Your task to perform on an android device: Clear the shopping cart on target. Search for "macbook pro" on target, select the first entry, add it to the cart, then select checkout. Image 0: 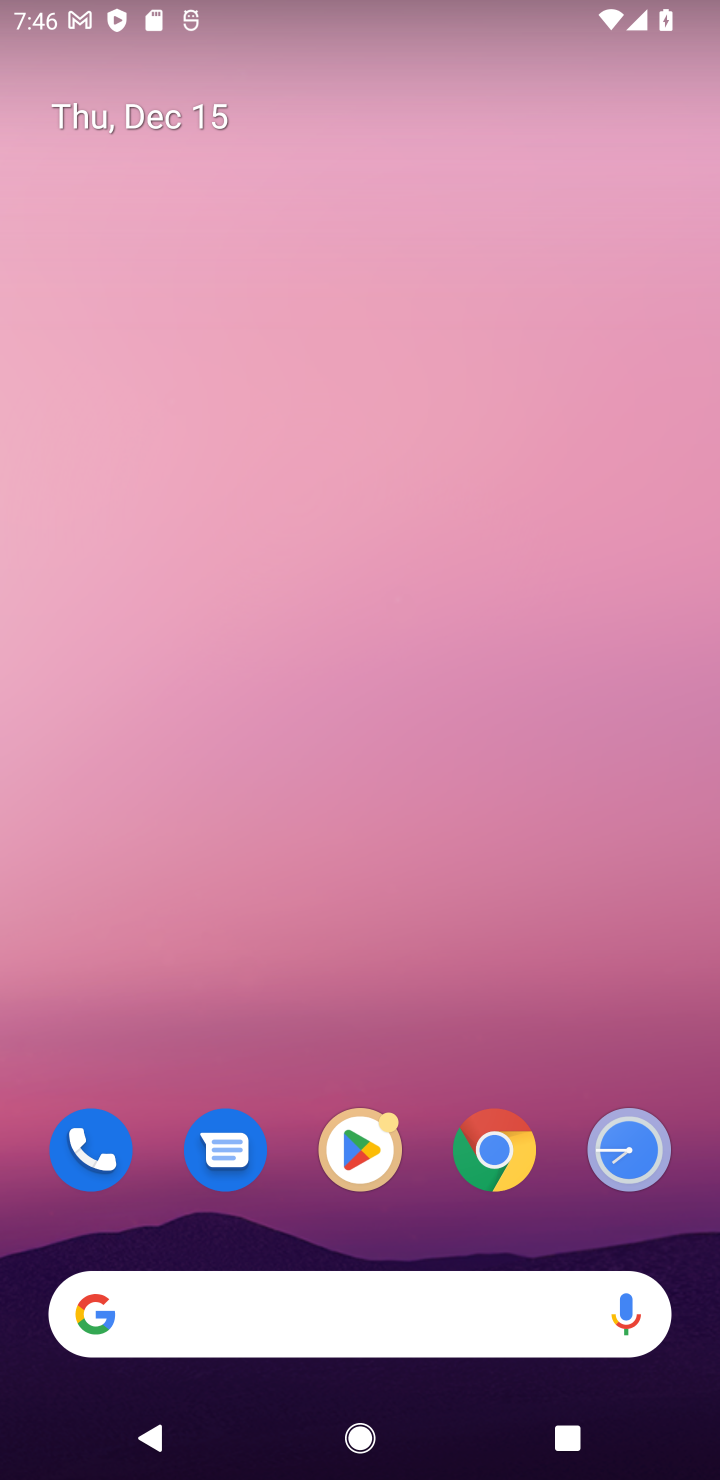
Step 0: click (484, 1124)
Your task to perform on an android device: Clear the shopping cart on target. Search for "macbook pro" on target, select the first entry, add it to the cart, then select checkout. Image 1: 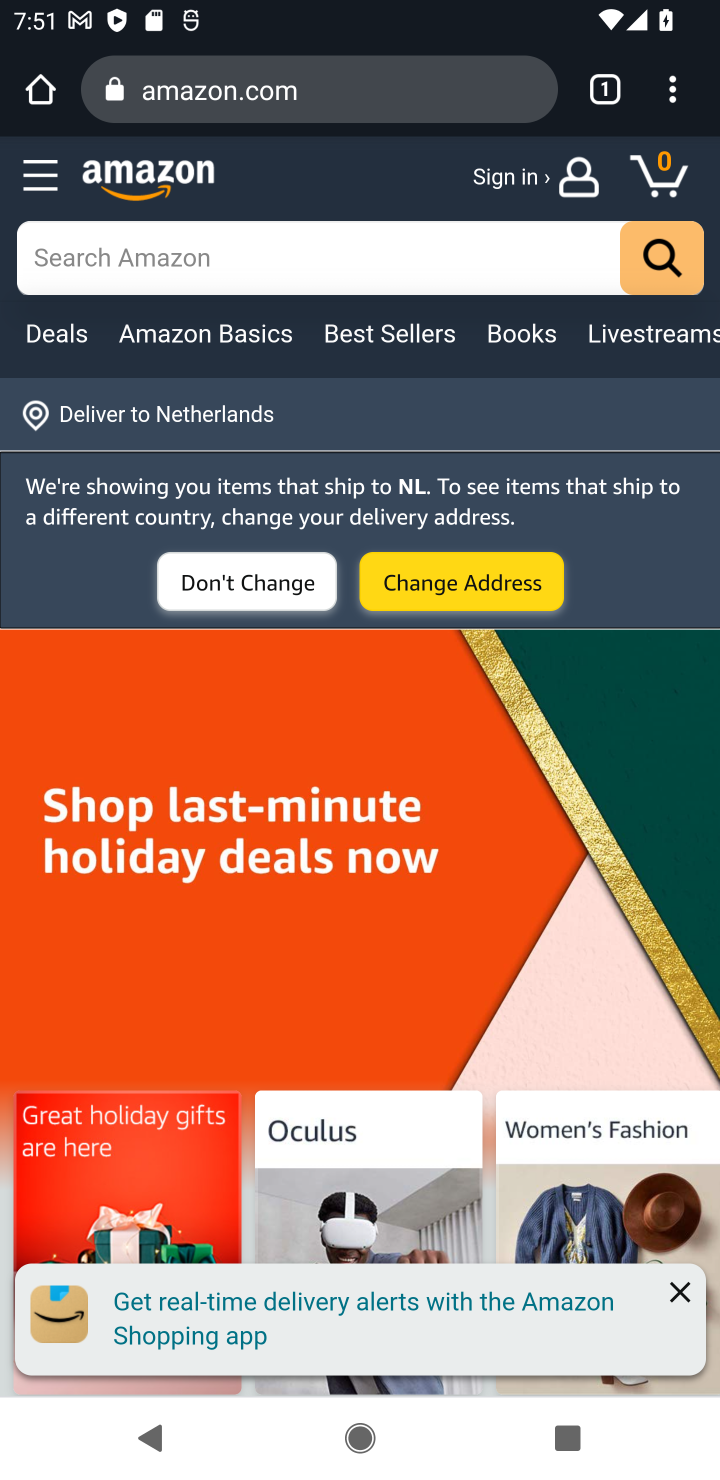
Step 1: task complete